Your task to perform on an android device: Go to privacy settings Image 0: 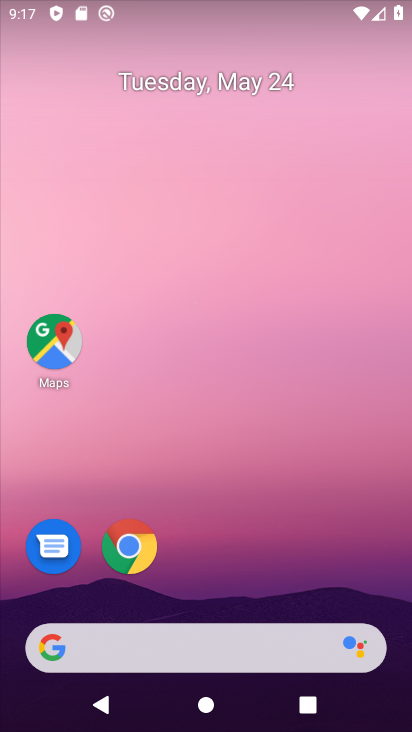
Step 0: drag from (273, 530) to (255, 90)
Your task to perform on an android device: Go to privacy settings Image 1: 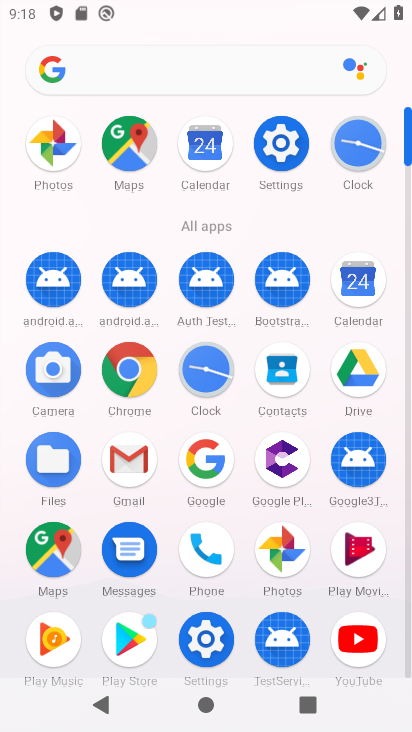
Step 1: click (280, 130)
Your task to perform on an android device: Go to privacy settings Image 2: 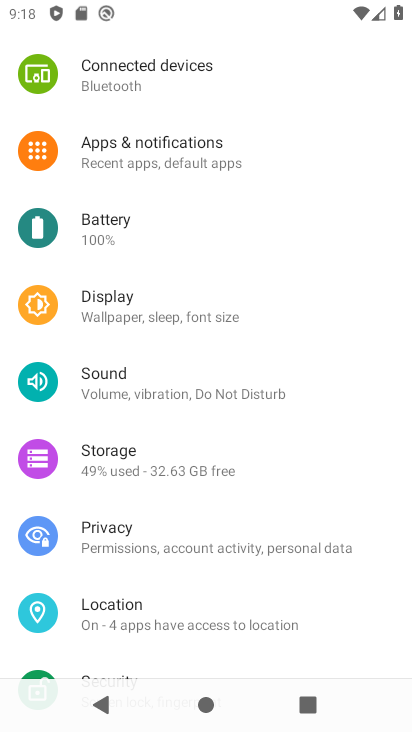
Step 2: click (111, 527)
Your task to perform on an android device: Go to privacy settings Image 3: 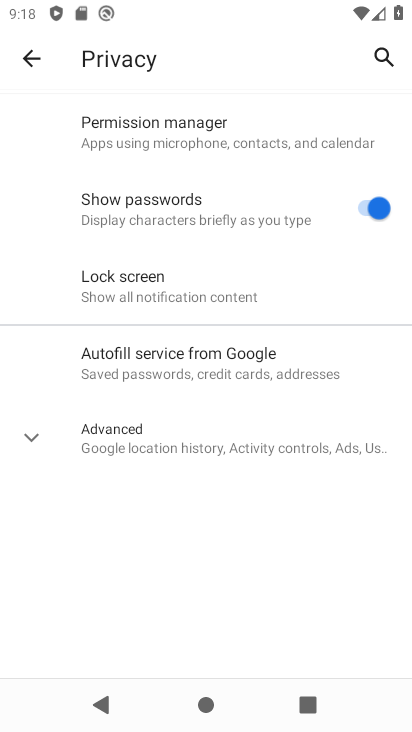
Step 3: task complete